Your task to perform on an android device: choose inbox layout in the gmail app Image 0: 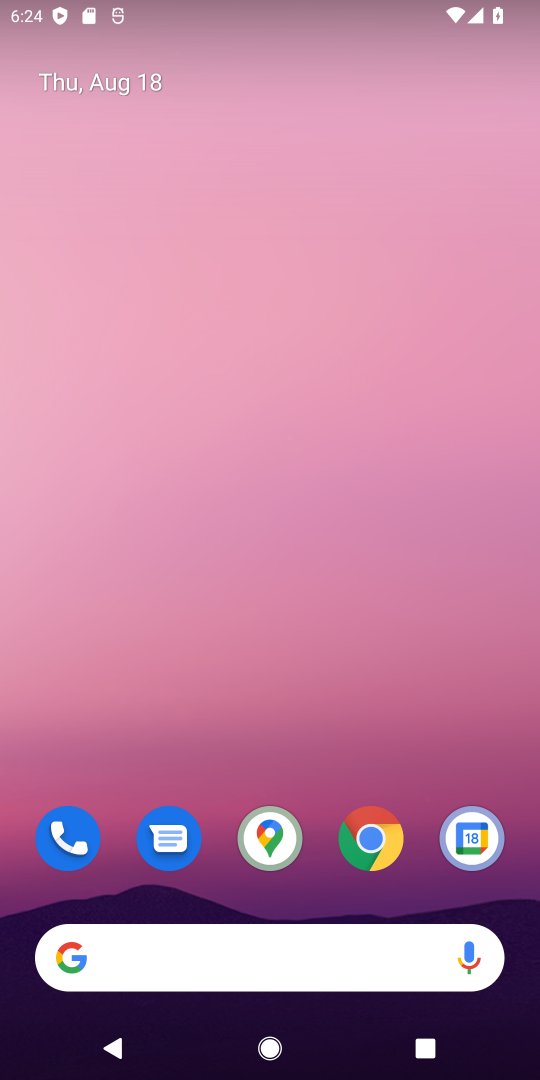
Step 0: press home button
Your task to perform on an android device: choose inbox layout in the gmail app Image 1: 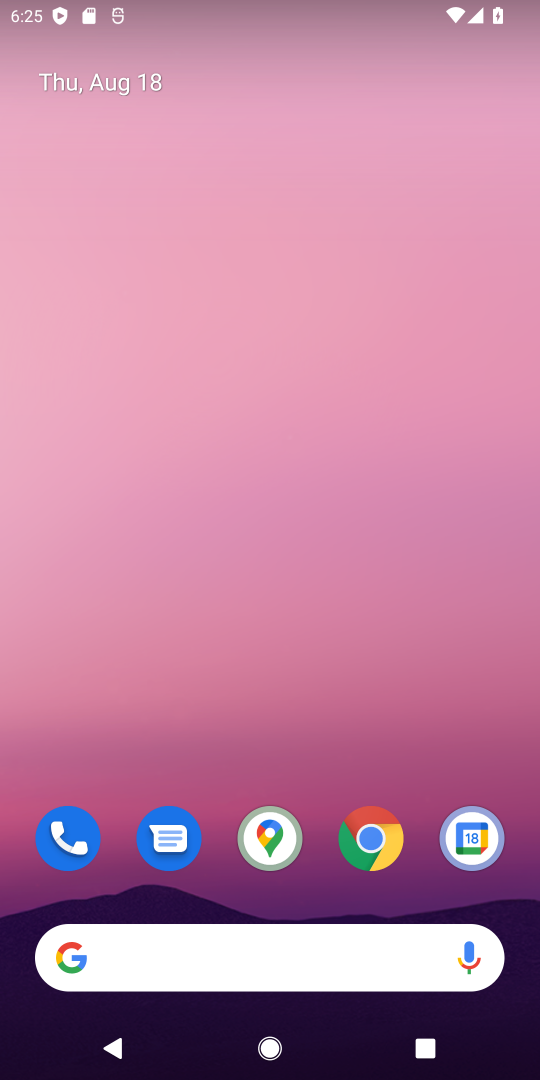
Step 1: drag from (324, 885) to (409, 405)
Your task to perform on an android device: choose inbox layout in the gmail app Image 2: 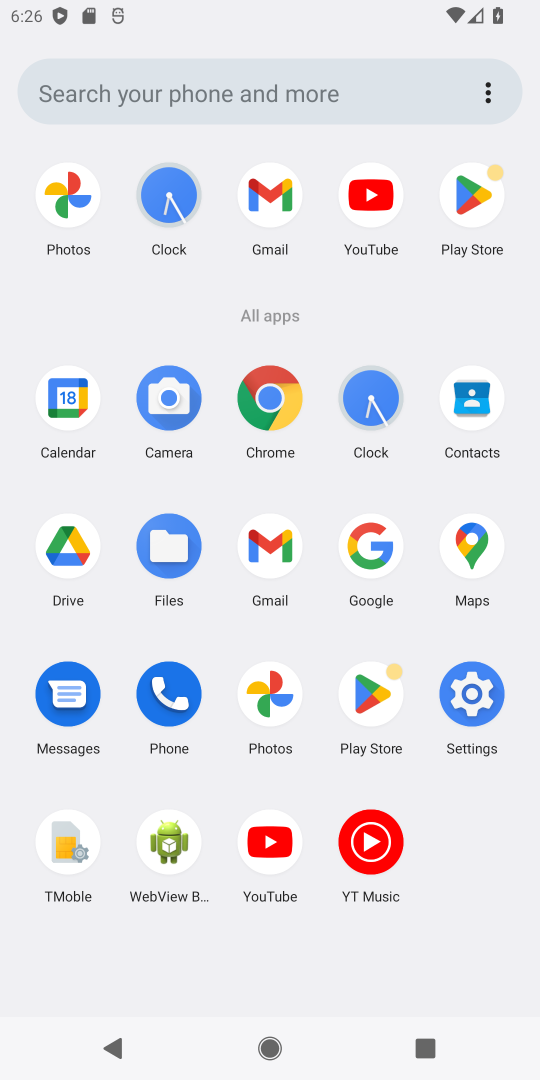
Step 2: click (275, 195)
Your task to perform on an android device: choose inbox layout in the gmail app Image 3: 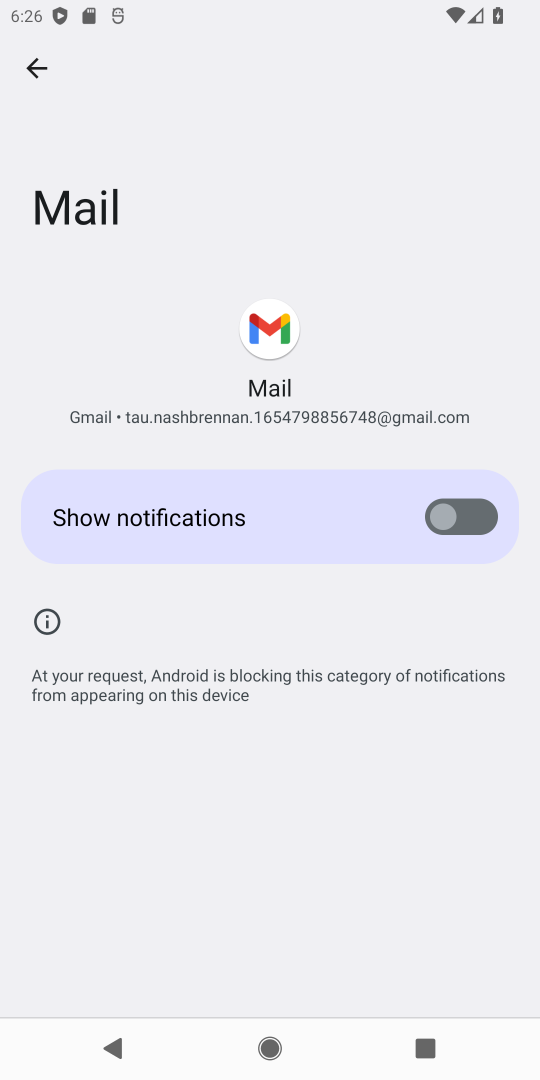
Step 3: press back button
Your task to perform on an android device: choose inbox layout in the gmail app Image 4: 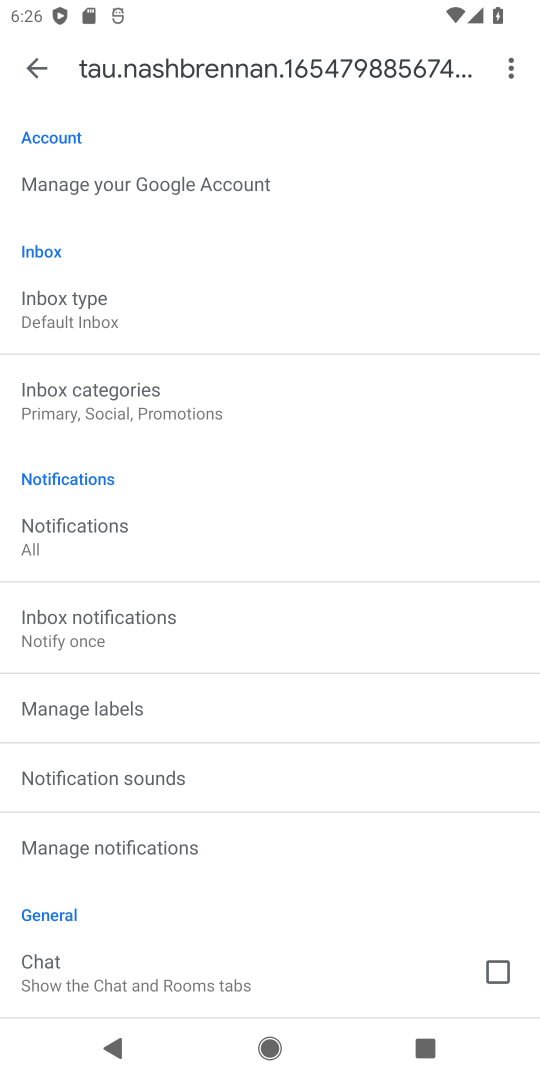
Step 4: click (48, 306)
Your task to perform on an android device: choose inbox layout in the gmail app Image 5: 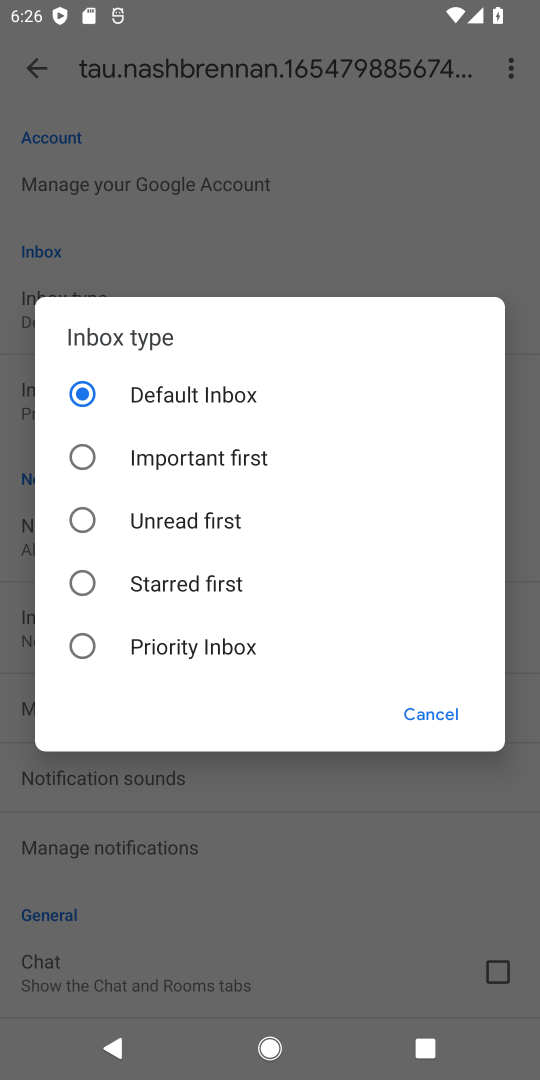
Step 5: click (83, 650)
Your task to perform on an android device: choose inbox layout in the gmail app Image 6: 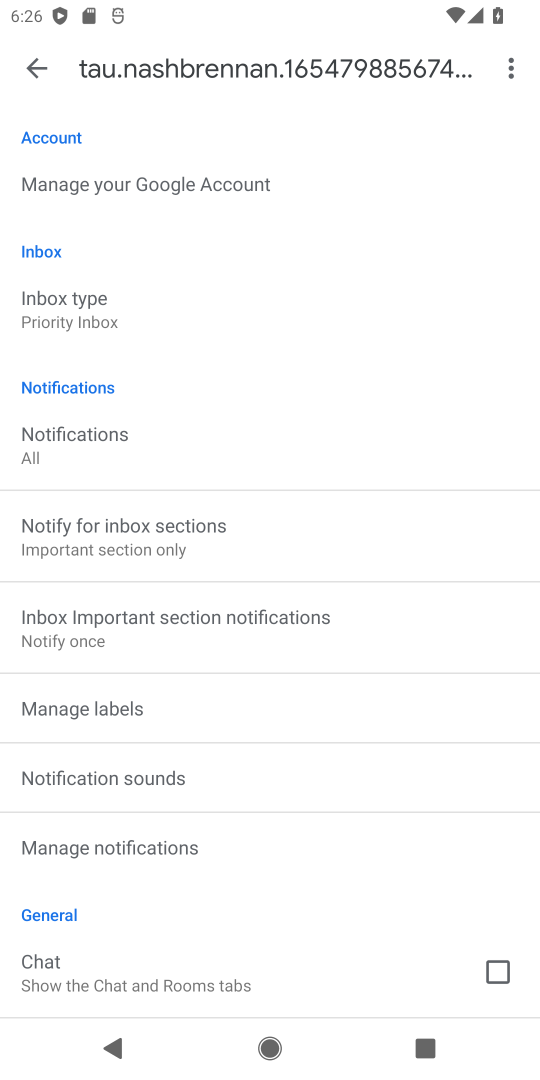
Step 6: task complete